Your task to perform on an android device: choose inbox layout in the gmail app Image 0: 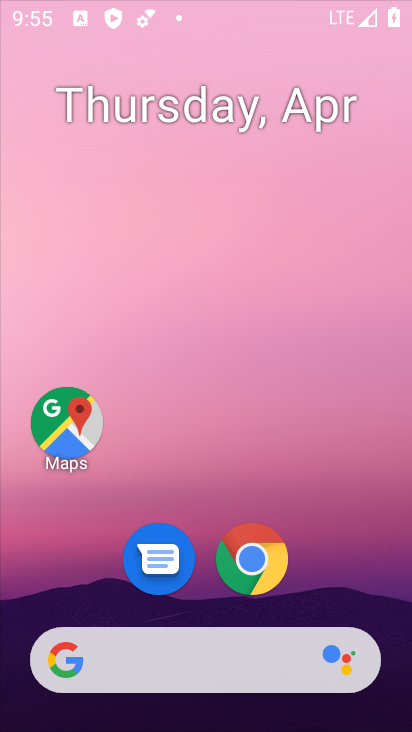
Step 0: click (192, 225)
Your task to perform on an android device: choose inbox layout in the gmail app Image 1: 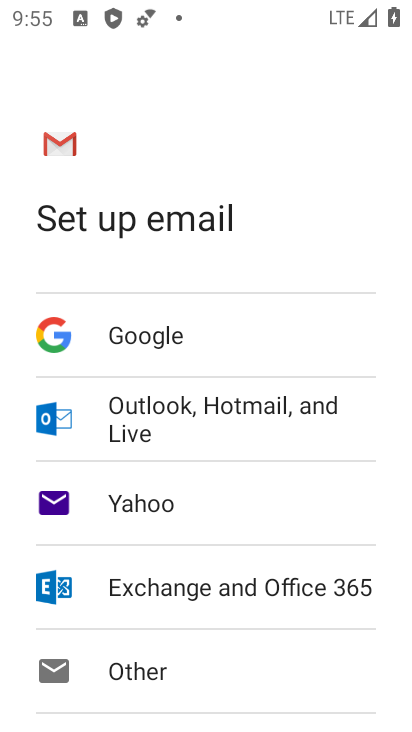
Step 1: press home button
Your task to perform on an android device: choose inbox layout in the gmail app Image 2: 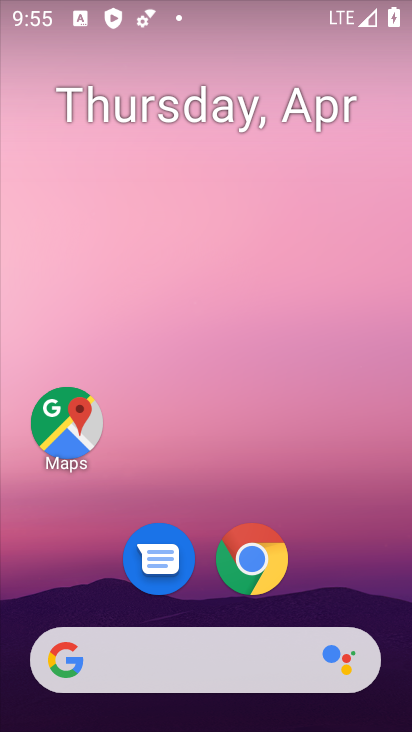
Step 2: drag from (209, 726) to (112, 166)
Your task to perform on an android device: choose inbox layout in the gmail app Image 3: 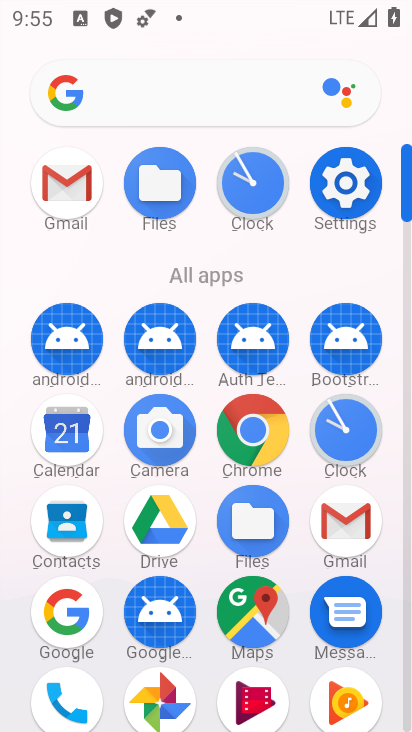
Step 3: click (78, 179)
Your task to perform on an android device: choose inbox layout in the gmail app Image 4: 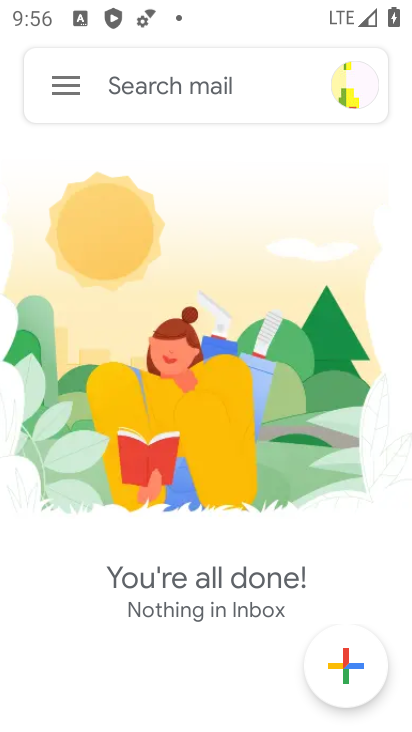
Step 4: click (58, 100)
Your task to perform on an android device: choose inbox layout in the gmail app Image 5: 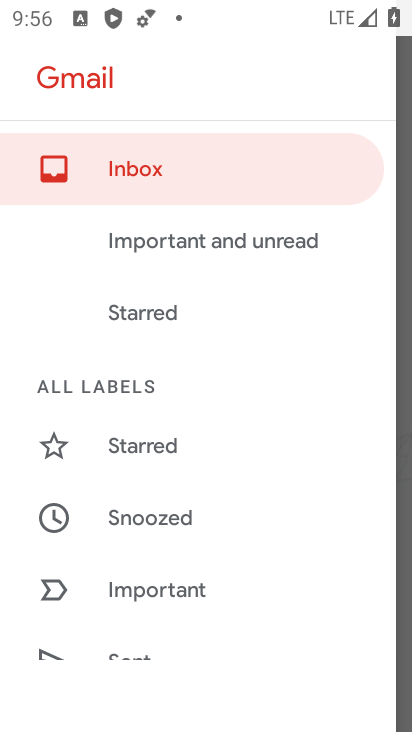
Step 5: drag from (268, 596) to (147, 255)
Your task to perform on an android device: choose inbox layout in the gmail app Image 6: 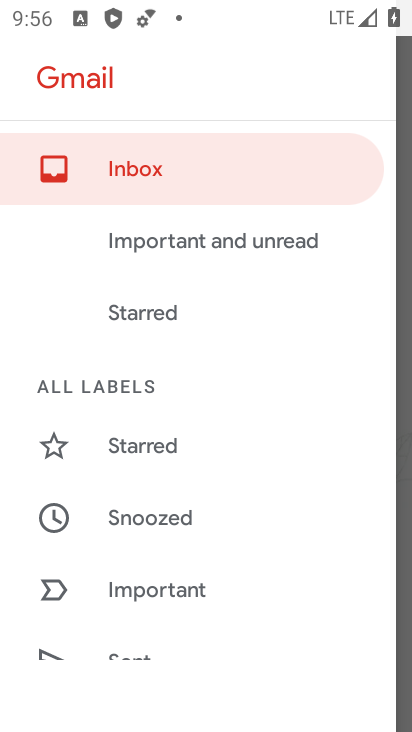
Step 6: drag from (258, 518) to (224, 2)
Your task to perform on an android device: choose inbox layout in the gmail app Image 7: 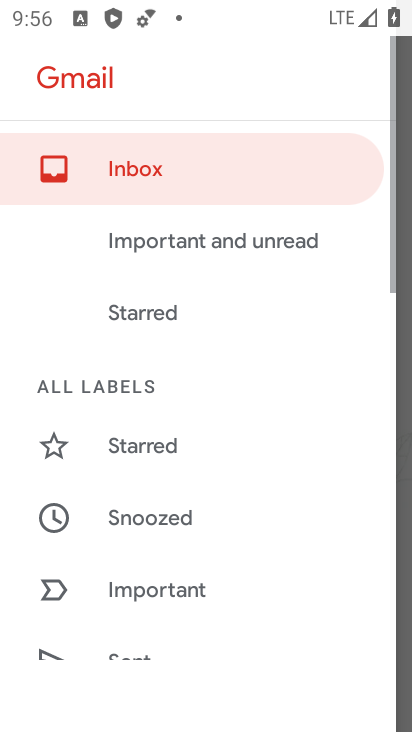
Step 7: drag from (252, 594) to (268, 86)
Your task to perform on an android device: choose inbox layout in the gmail app Image 8: 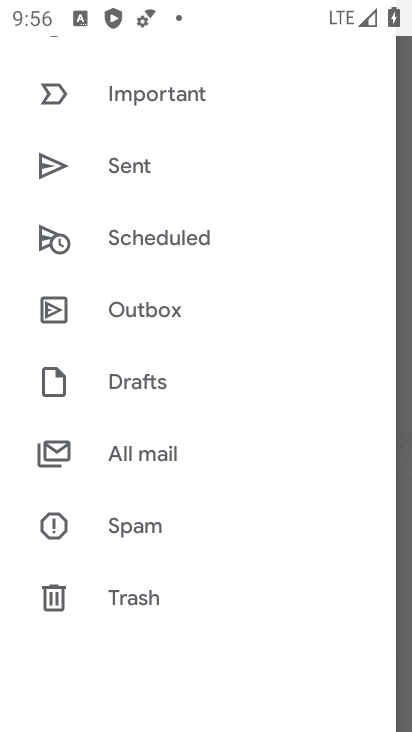
Step 8: drag from (259, 608) to (266, 95)
Your task to perform on an android device: choose inbox layout in the gmail app Image 9: 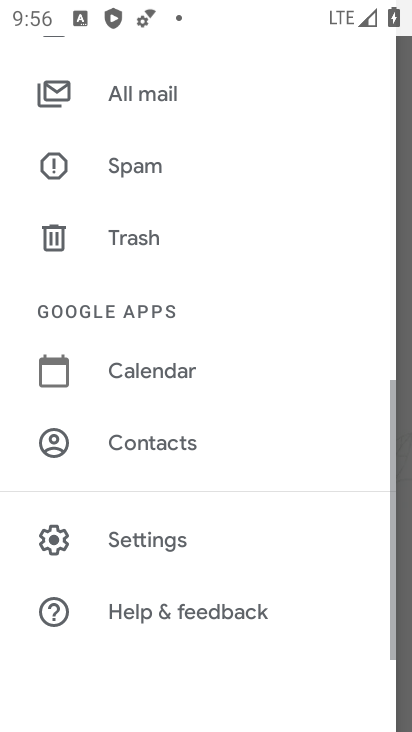
Step 9: click (147, 535)
Your task to perform on an android device: choose inbox layout in the gmail app Image 10: 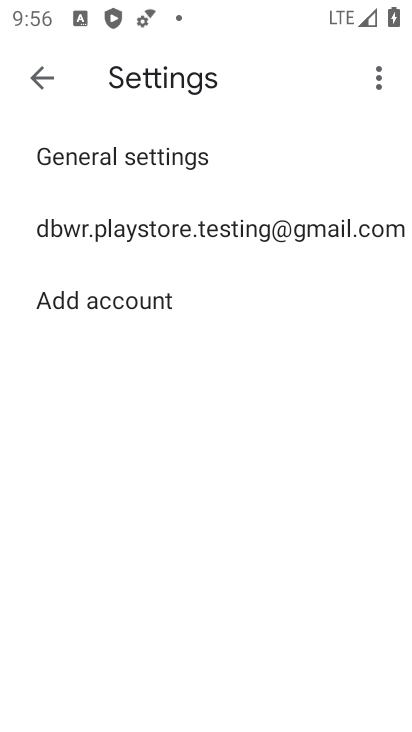
Step 10: click (182, 227)
Your task to perform on an android device: choose inbox layout in the gmail app Image 11: 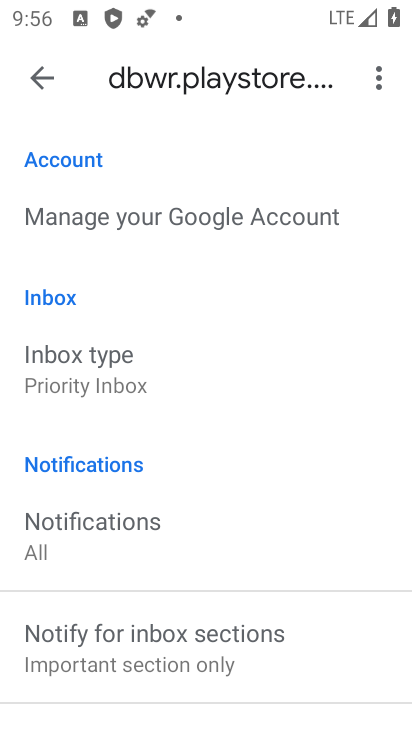
Step 11: click (105, 364)
Your task to perform on an android device: choose inbox layout in the gmail app Image 12: 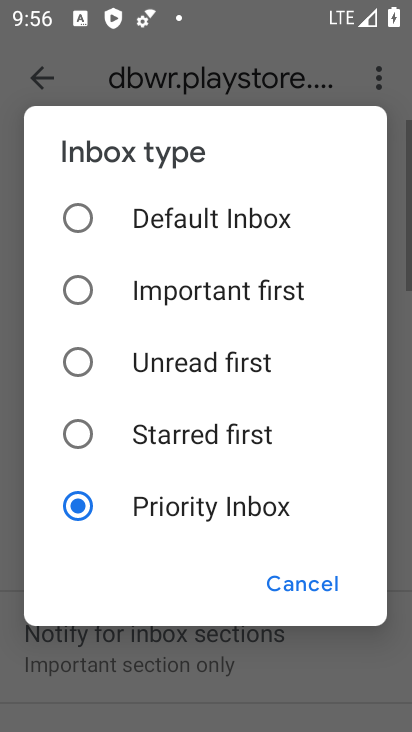
Step 12: click (259, 210)
Your task to perform on an android device: choose inbox layout in the gmail app Image 13: 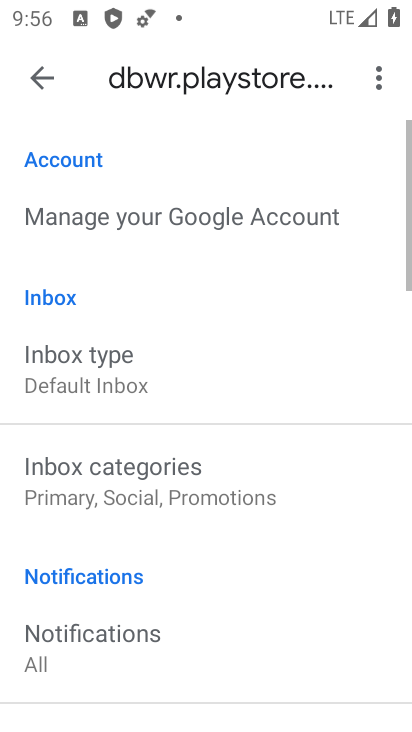
Step 13: task complete